Your task to perform on an android device: Go to ESPN.com Image 0: 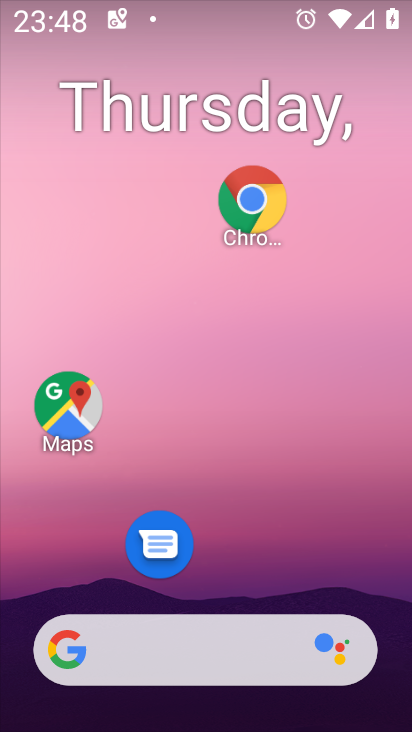
Step 0: click (180, 683)
Your task to perform on an android device: Go to ESPN.com Image 1: 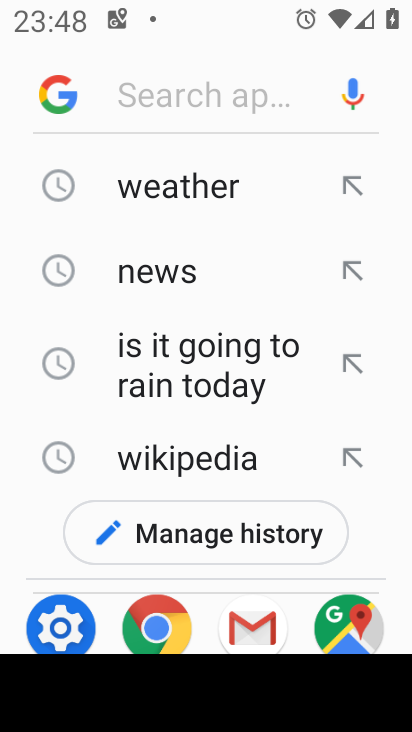
Step 1: type "espn.com"
Your task to perform on an android device: Go to ESPN.com Image 2: 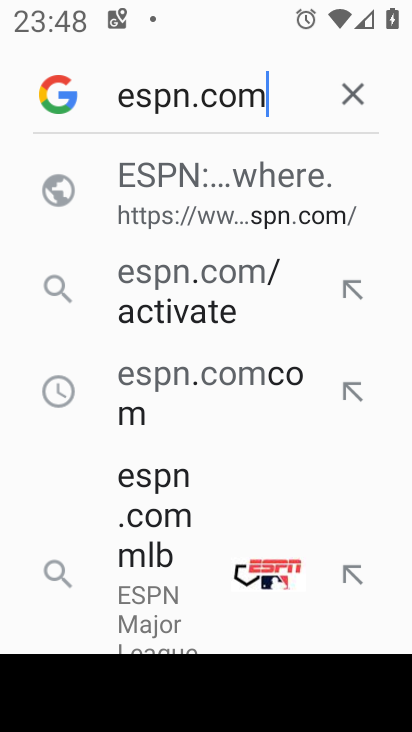
Step 2: click (210, 191)
Your task to perform on an android device: Go to ESPN.com Image 3: 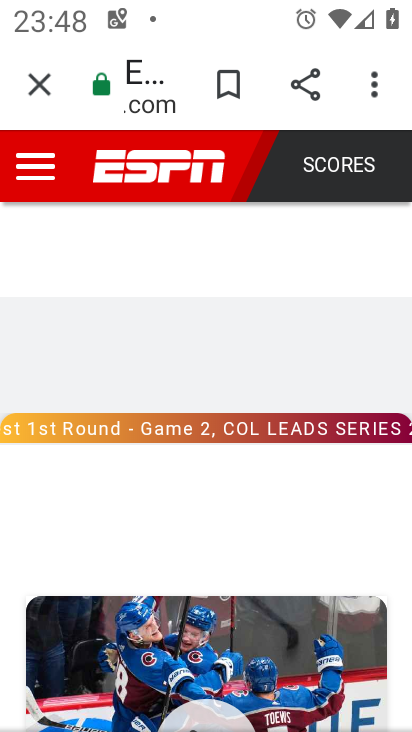
Step 3: task complete